Your task to perform on an android device: What is the news today? Image 0: 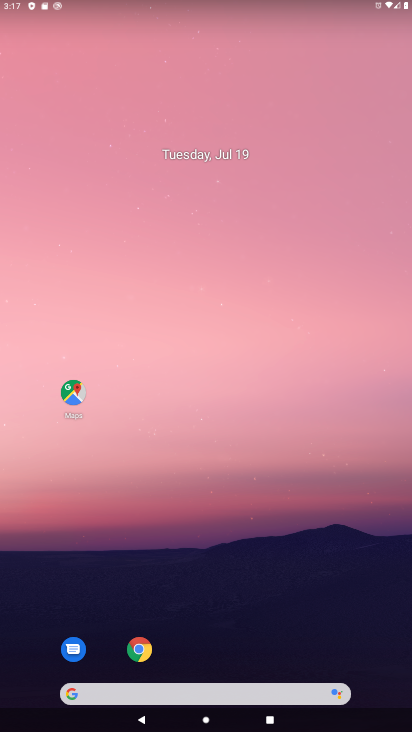
Step 0: drag from (189, 580) to (252, 104)
Your task to perform on an android device: What is the news today? Image 1: 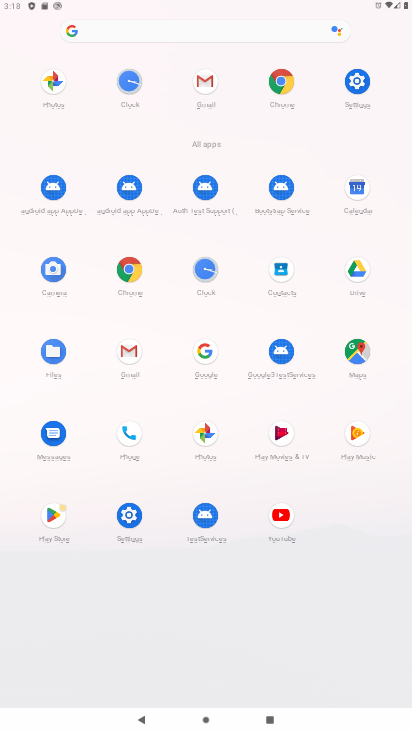
Step 1: click (271, 73)
Your task to perform on an android device: What is the news today? Image 2: 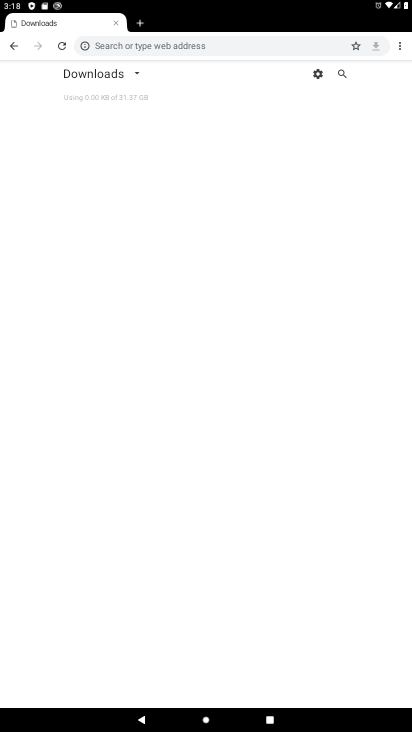
Step 2: click (145, 24)
Your task to perform on an android device: What is the news today? Image 3: 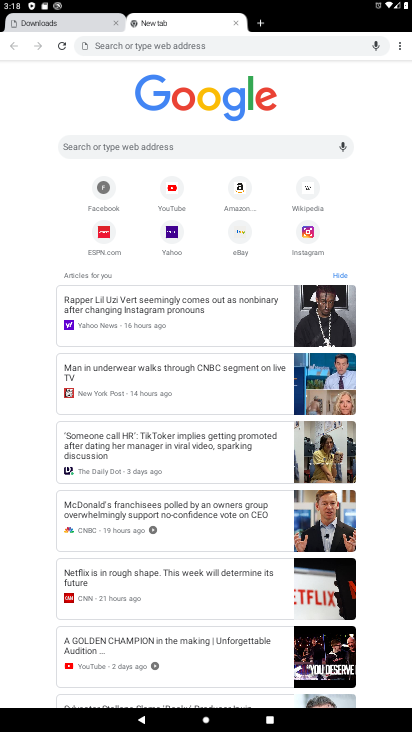
Step 3: task complete